Your task to perform on an android device: Open settings on Google Maps Image 0: 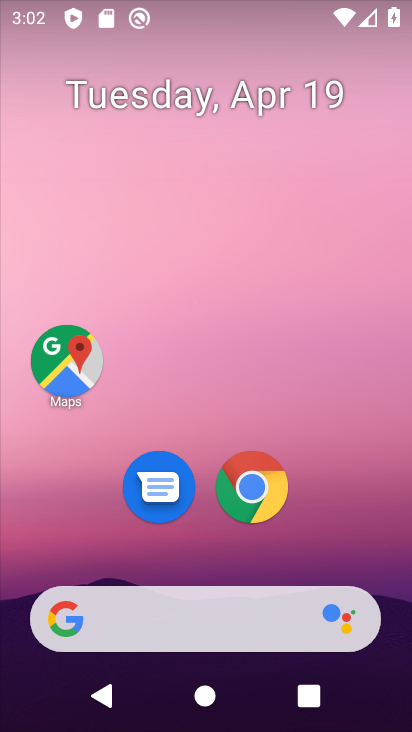
Step 0: click (66, 356)
Your task to perform on an android device: Open settings on Google Maps Image 1: 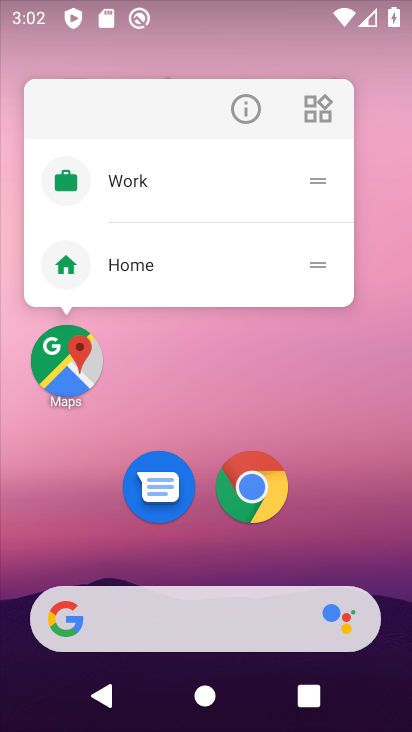
Step 1: click (69, 369)
Your task to perform on an android device: Open settings on Google Maps Image 2: 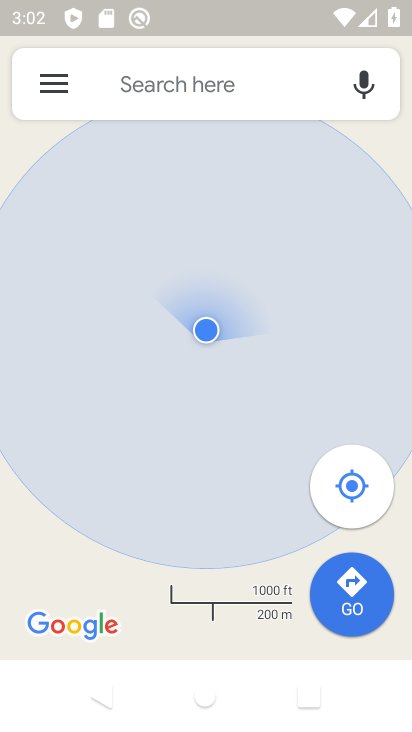
Step 2: click (68, 88)
Your task to perform on an android device: Open settings on Google Maps Image 3: 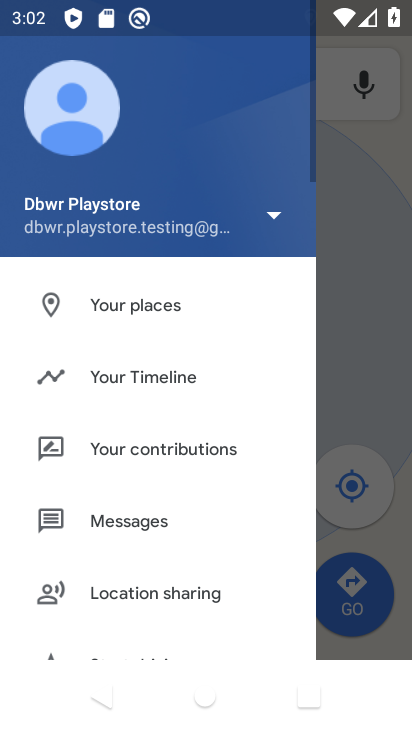
Step 3: drag from (185, 615) to (201, 109)
Your task to perform on an android device: Open settings on Google Maps Image 4: 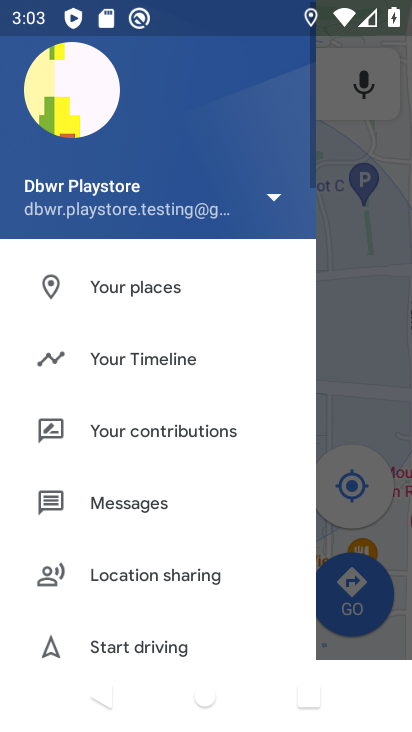
Step 4: drag from (127, 579) to (222, 81)
Your task to perform on an android device: Open settings on Google Maps Image 5: 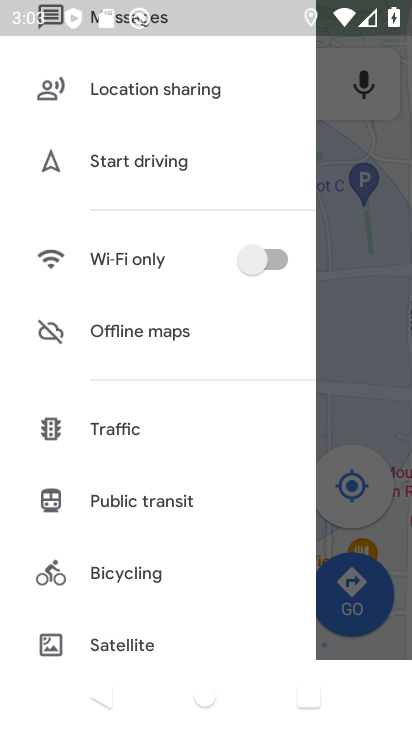
Step 5: drag from (137, 606) to (237, 52)
Your task to perform on an android device: Open settings on Google Maps Image 6: 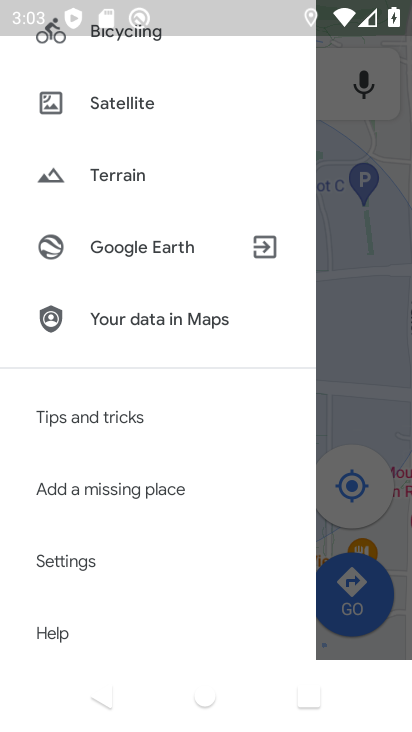
Step 6: click (91, 569)
Your task to perform on an android device: Open settings on Google Maps Image 7: 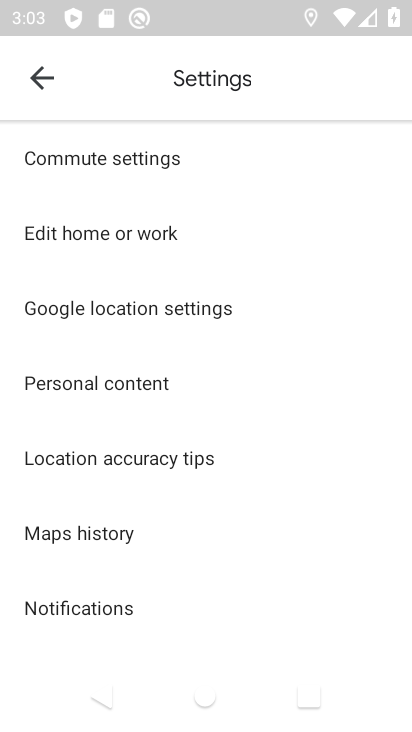
Step 7: task complete